Your task to perform on an android device: Check the weather Image 0: 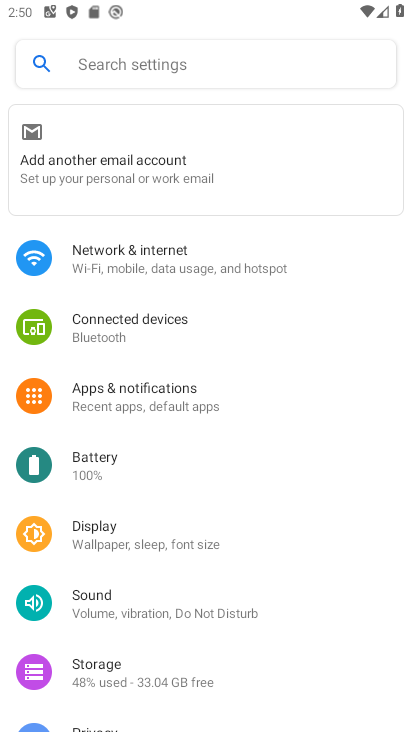
Step 0: press home button
Your task to perform on an android device: Check the weather Image 1: 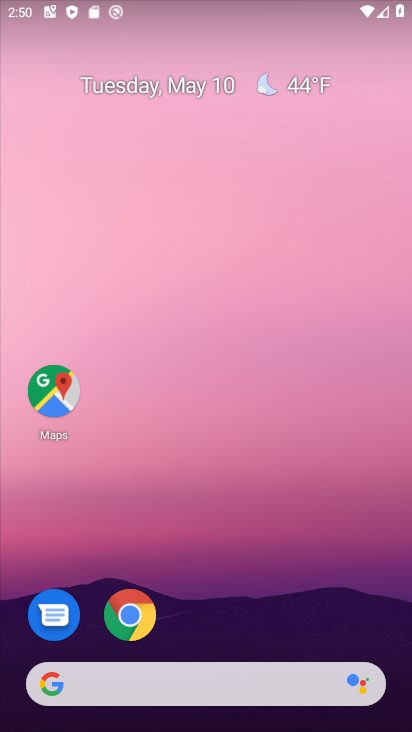
Step 1: drag from (198, 693) to (201, 261)
Your task to perform on an android device: Check the weather Image 2: 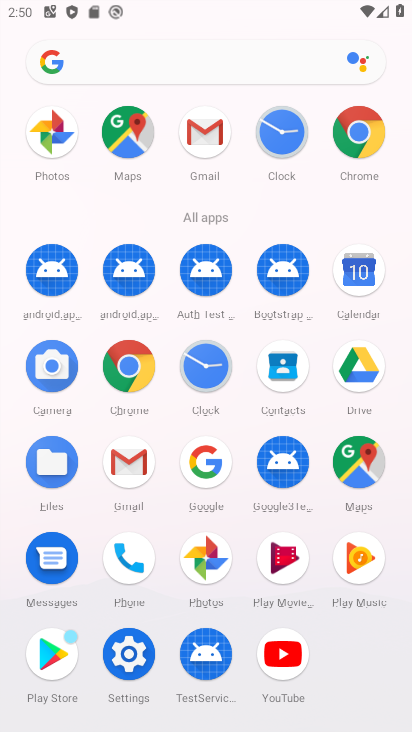
Step 2: click (205, 475)
Your task to perform on an android device: Check the weather Image 3: 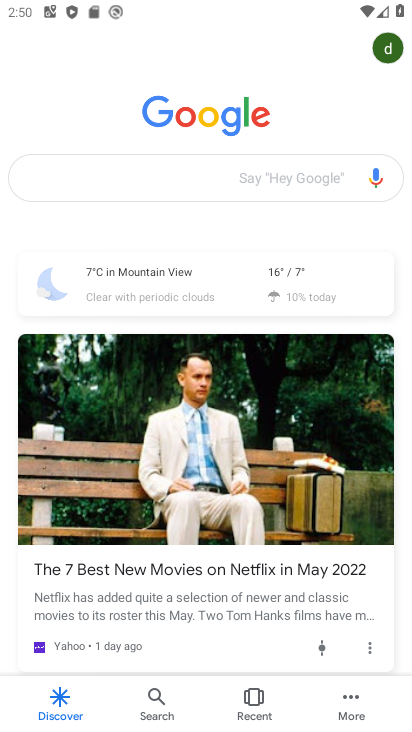
Step 3: click (170, 277)
Your task to perform on an android device: Check the weather Image 4: 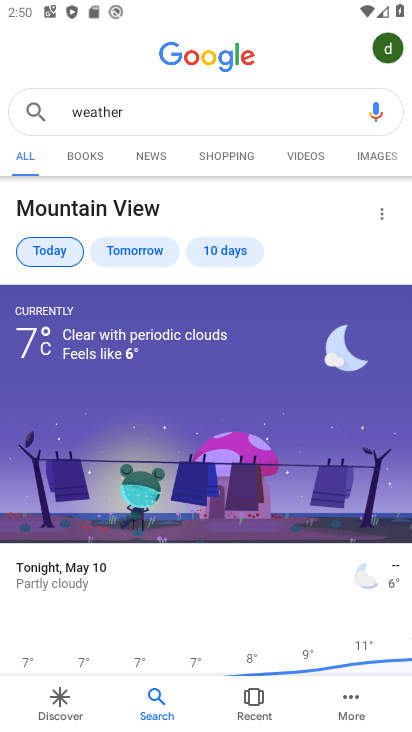
Step 4: task complete